Your task to perform on an android device: Set the phone to "Do not disturb". Image 0: 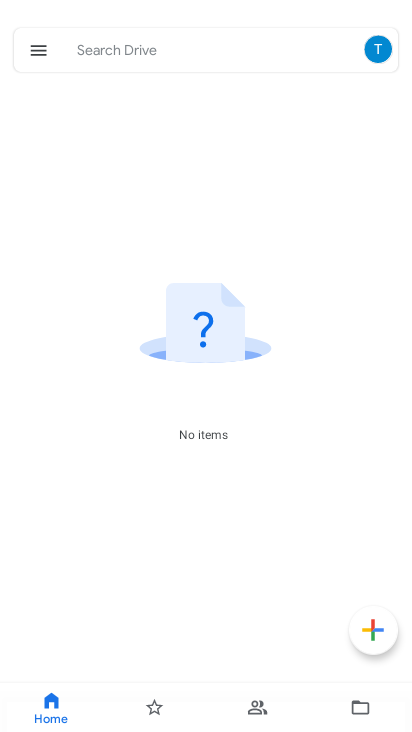
Step 0: press home button
Your task to perform on an android device: Set the phone to "Do not disturb". Image 1: 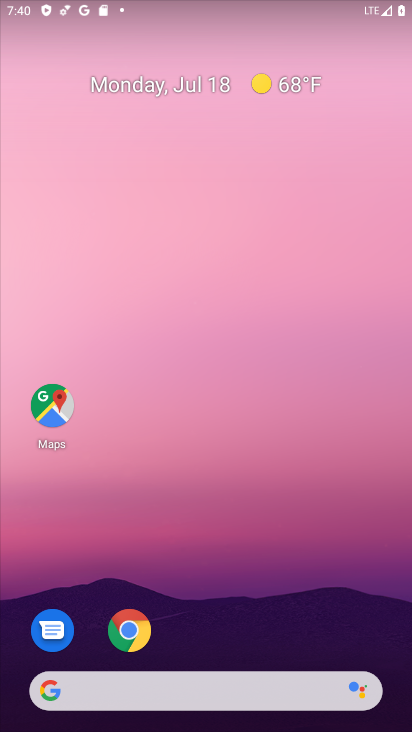
Step 1: drag from (223, 696) to (229, 233)
Your task to perform on an android device: Set the phone to "Do not disturb". Image 2: 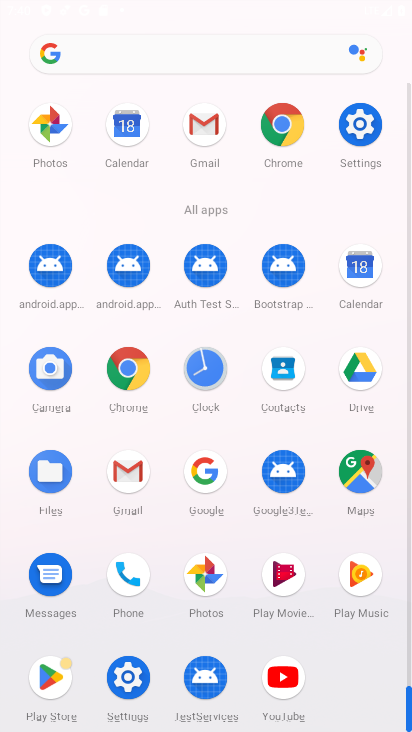
Step 2: drag from (266, 14) to (211, 421)
Your task to perform on an android device: Set the phone to "Do not disturb". Image 3: 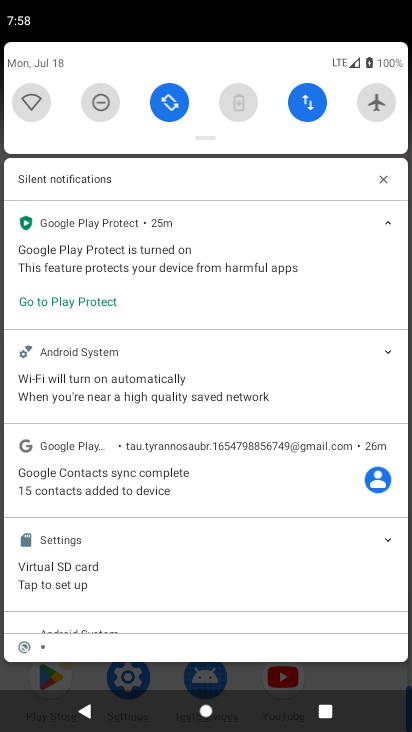
Step 3: drag from (203, 130) to (215, 476)
Your task to perform on an android device: Set the phone to "Do not disturb". Image 4: 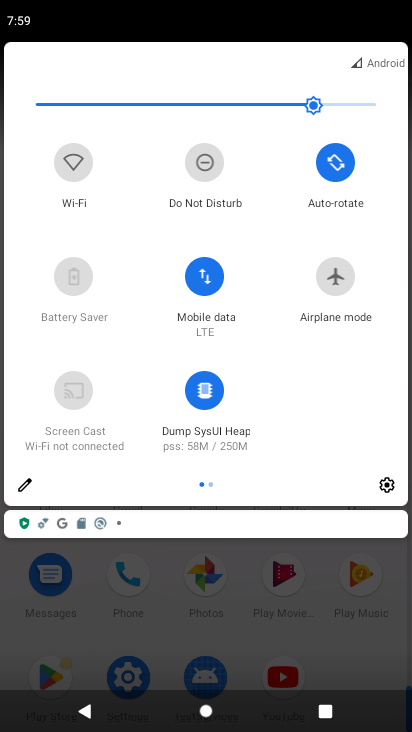
Step 4: click (203, 163)
Your task to perform on an android device: Set the phone to "Do not disturb". Image 5: 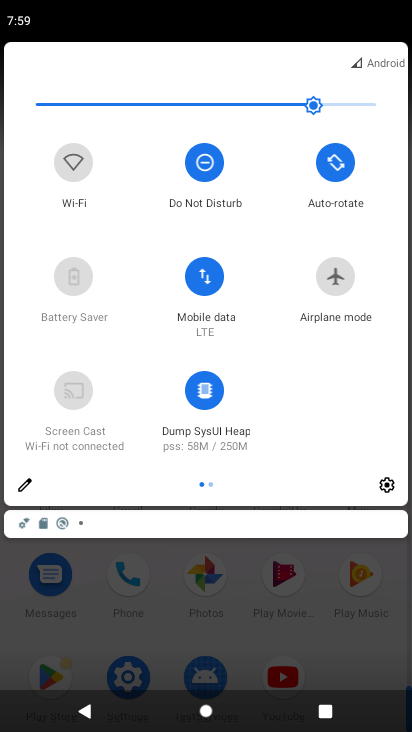
Step 5: task complete